Your task to perform on an android device: Is it going to rain today? Image 0: 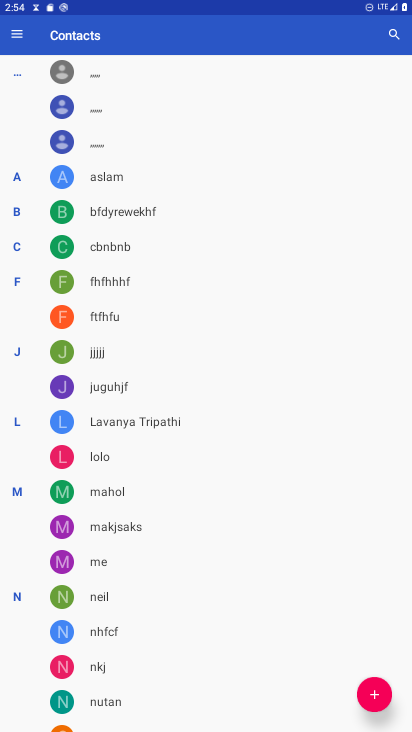
Step 0: press home button
Your task to perform on an android device: Is it going to rain today? Image 1: 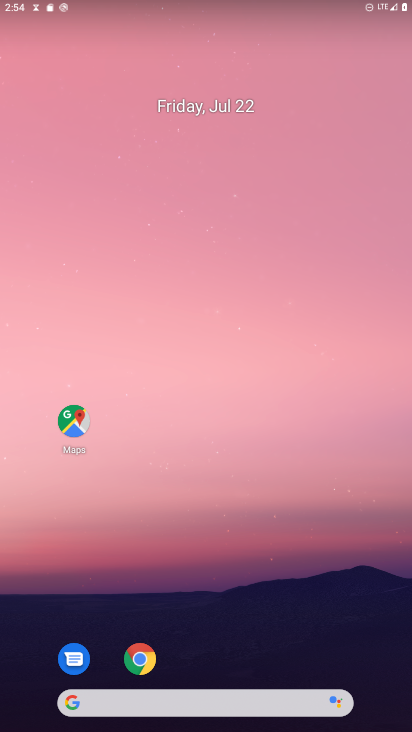
Step 1: drag from (267, 572) to (273, 10)
Your task to perform on an android device: Is it going to rain today? Image 2: 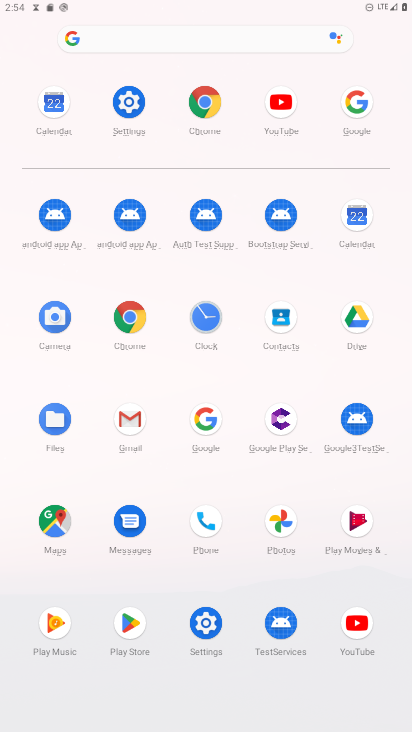
Step 2: click (369, 86)
Your task to perform on an android device: Is it going to rain today? Image 3: 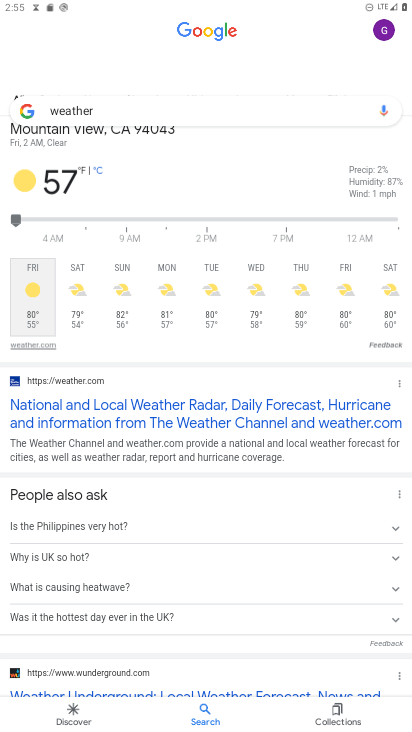
Step 3: task complete